Your task to perform on an android device: Open Youtube and go to the subscriptions tab Image 0: 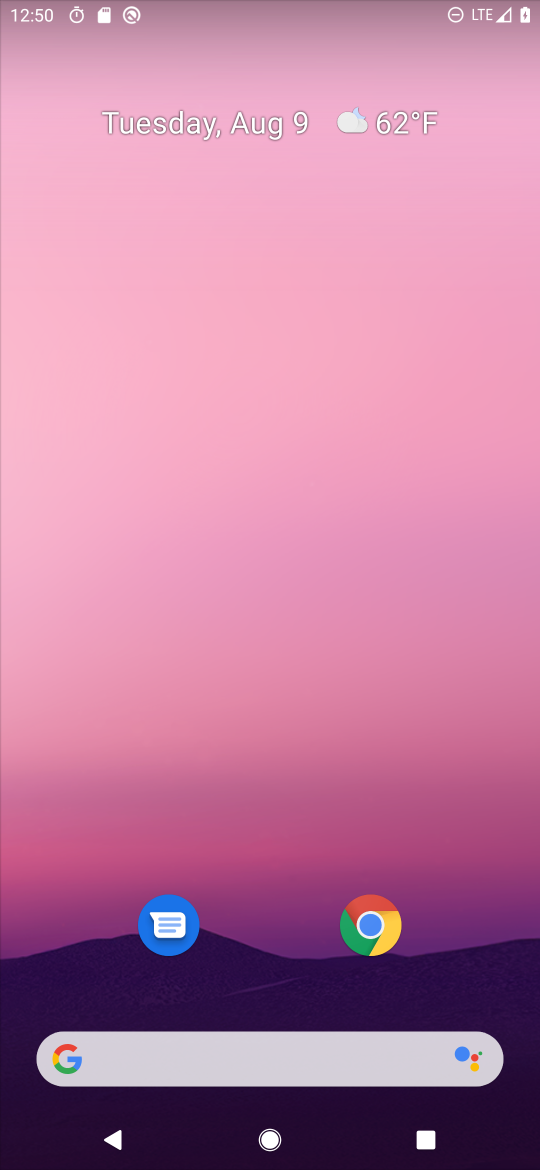
Step 0: drag from (340, 949) to (448, 108)
Your task to perform on an android device: Open Youtube and go to the subscriptions tab Image 1: 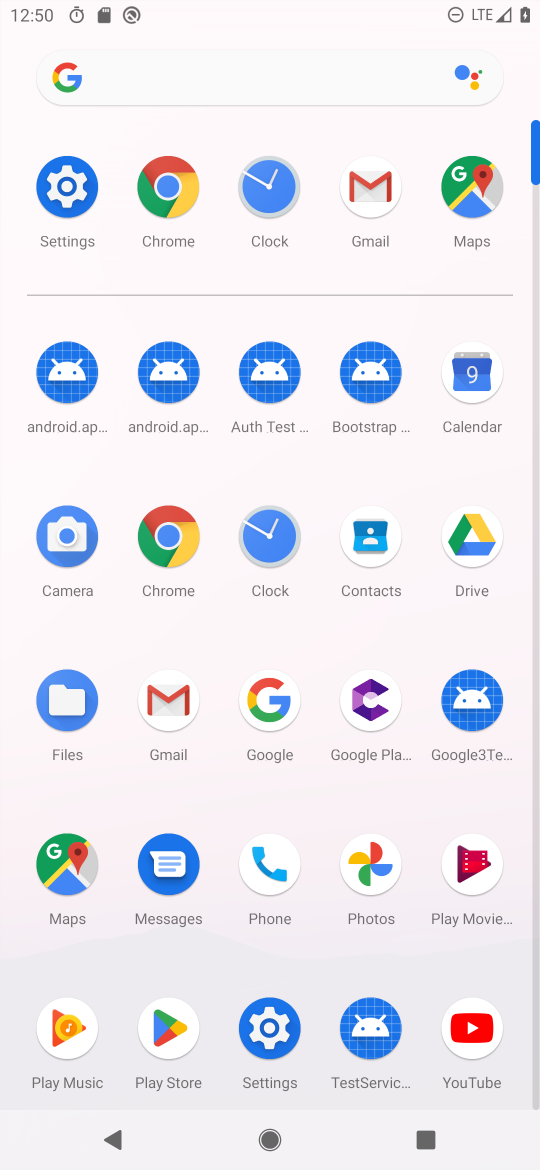
Step 1: click (472, 1041)
Your task to perform on an android device: Open Youtube and go to the subscriptions tab Image 2: 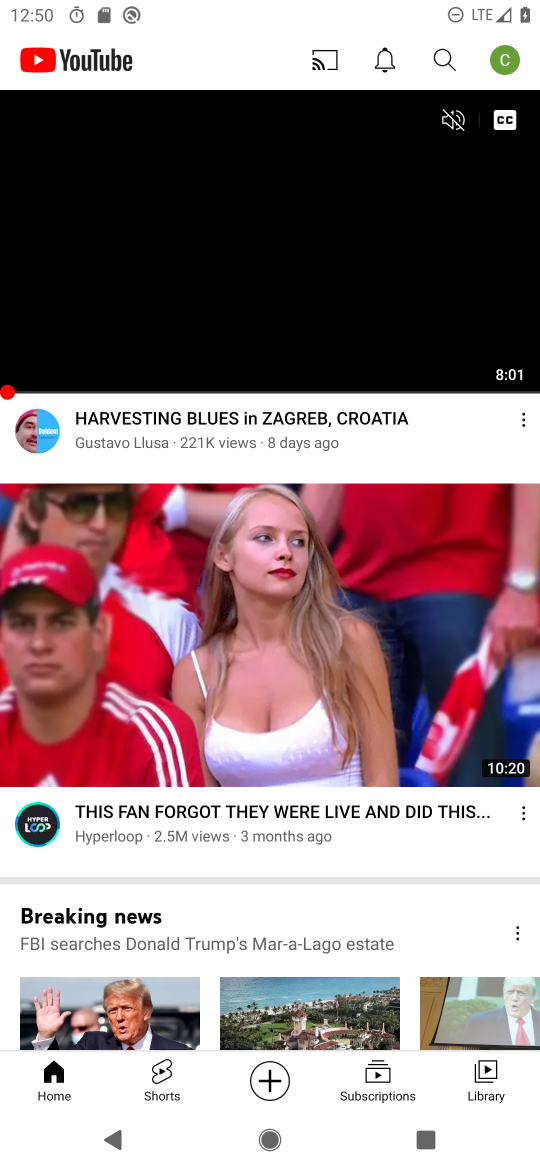
Step 2: click (394, 1086)
Your task to perform on an android device: Open Youtube and go to the subscriptions tab Image 3: 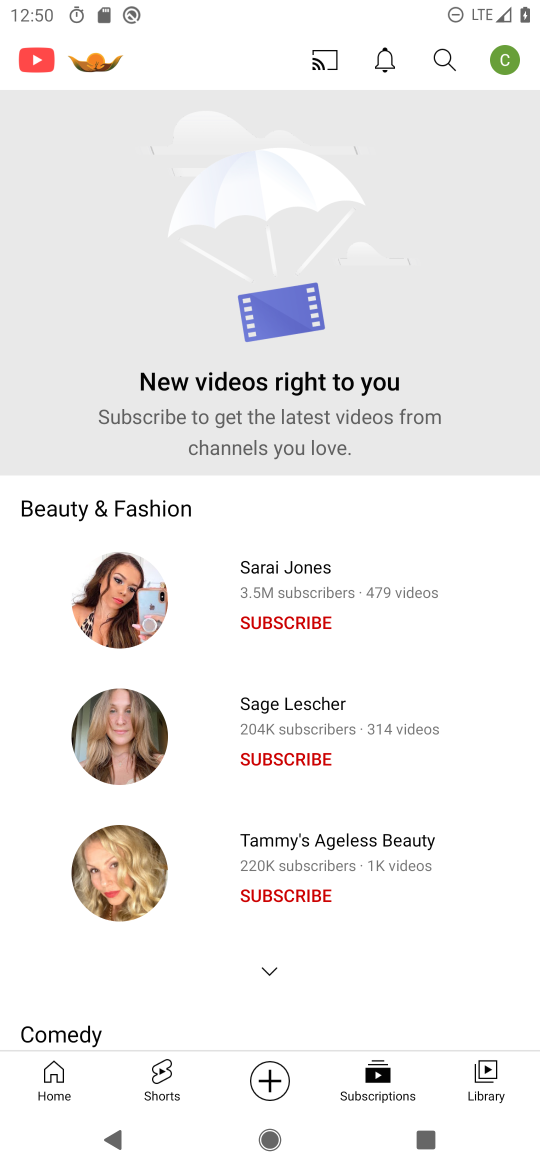
Step 3: task complete